Your task to perform on an android device: Open privacy settings Image 0: 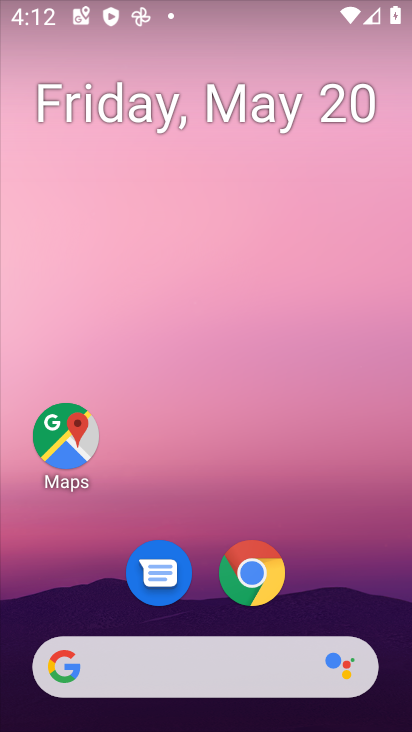
Step 0: drag from (395, 632) to (324, 145)
Your task to perform on an android device: Open privacy settings Image 1: 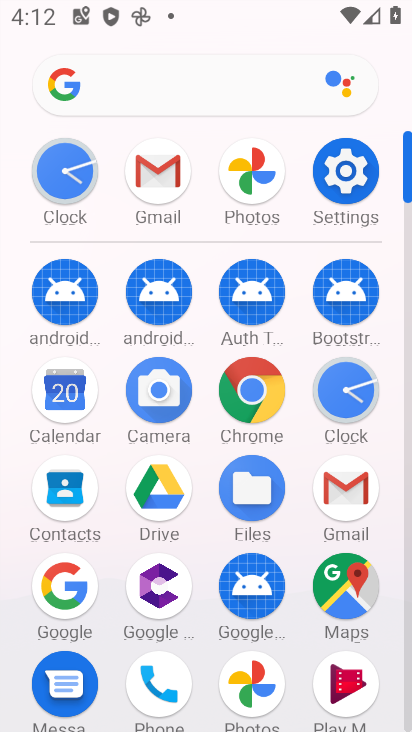
Step 1: click (409, 698)
Your task to perform on an android device: Open privacy settings Image 2: 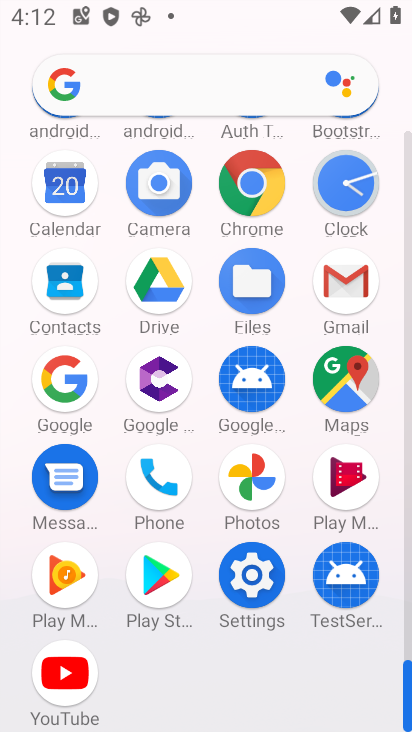
Step 2: click (253, 574)
Your task to perform on an android device: Open privacy settings Image 3: 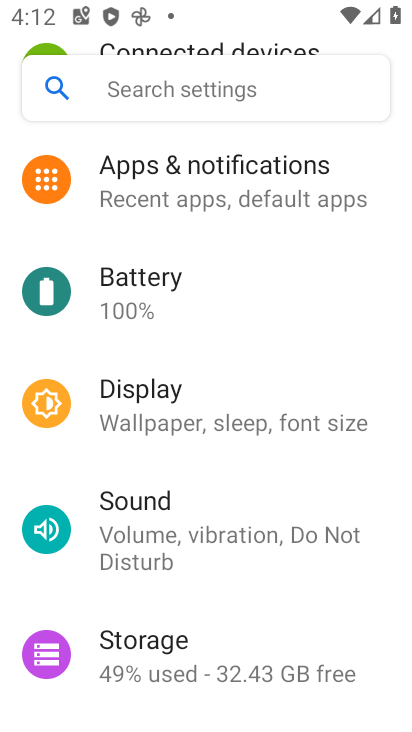
Step 3: drag from (387, 607) to (355, 196)
Your task to perform on an android device: Open privacy settings Image 4: 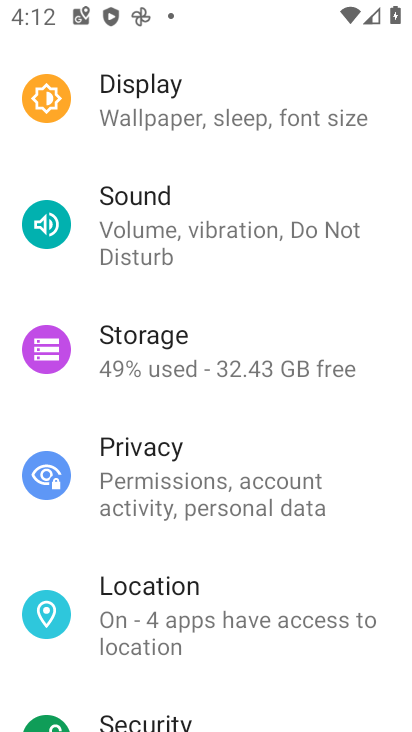
Step 4: click (132, 475)
Your task to perform on an android device: Open privacy settings Image 5: 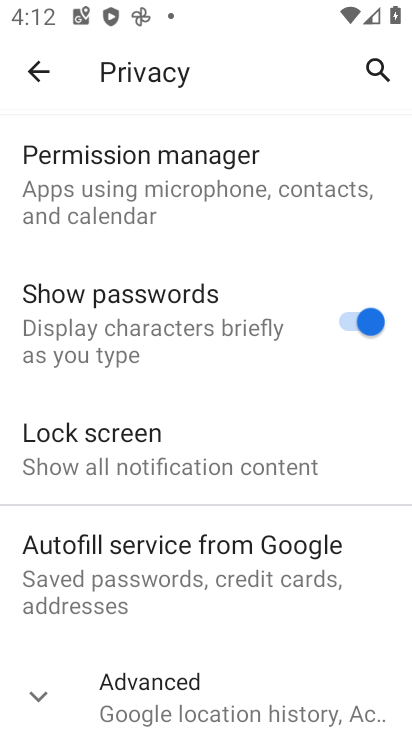
Step 5: drag from (251, 615) to (259, 204)
Your task to perform on an android device: Open privacy settings Image 6: 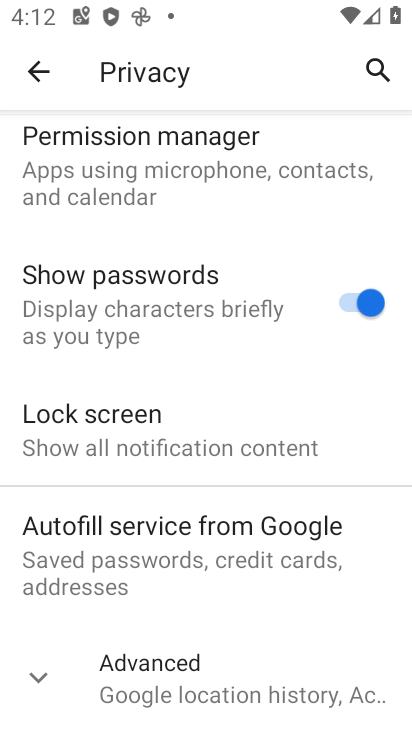
Step 6: click (34, 678)
Your task to perform on an android device: Open privacy settings Image 7: 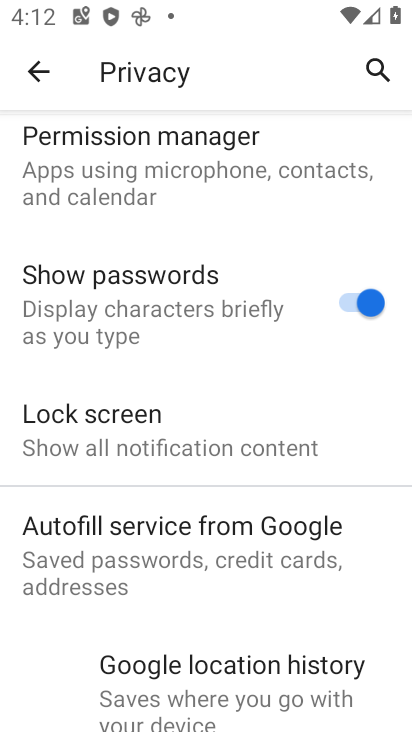
Step 7: task complete